Your task to perform on an android device: move a message to another label in the gmail app Image 0: 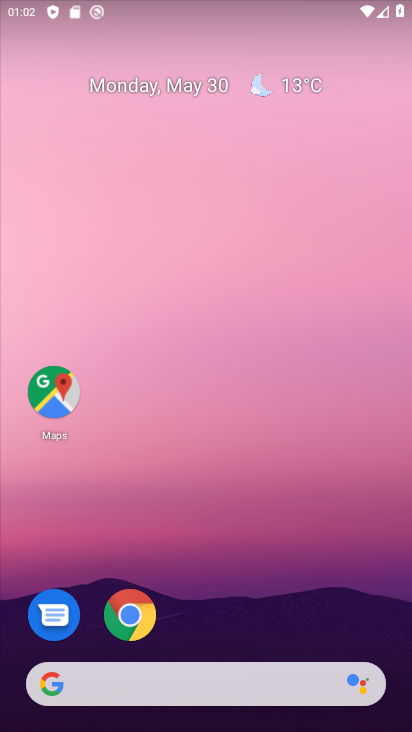
Step 0: drag from (187, 640) to (359, 18)
Your task to perform on an android device: move a message to another label in the gmail app Image 1: 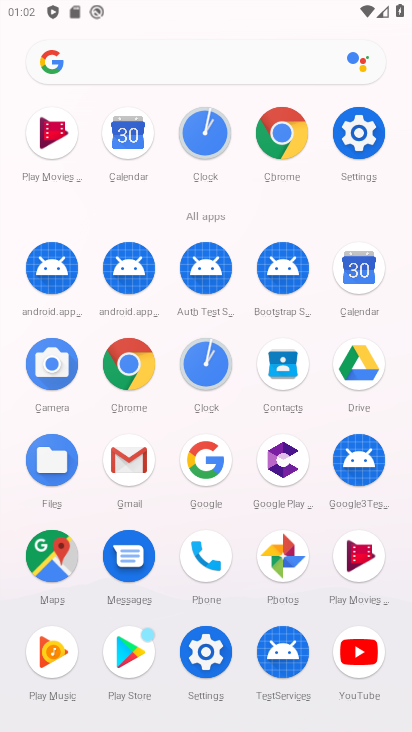
Step 1: click (143, 458)
Your task to perform on an android device: move a message to another label in the gmail app Image 2: 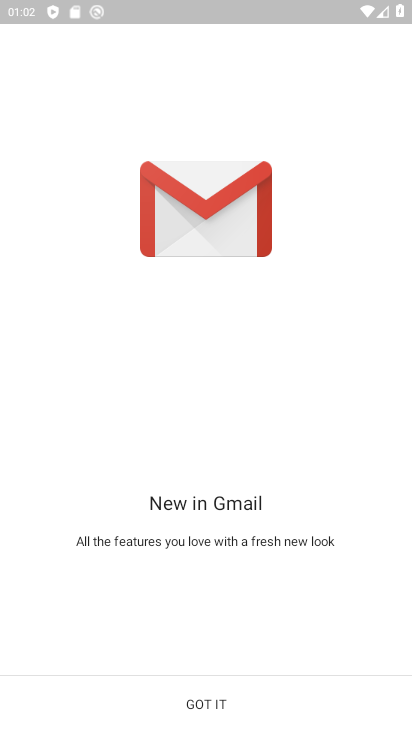
Step 2: click (259, 700)
Your task to perform on an android device: move a message to another label in the gmail app Image 3: 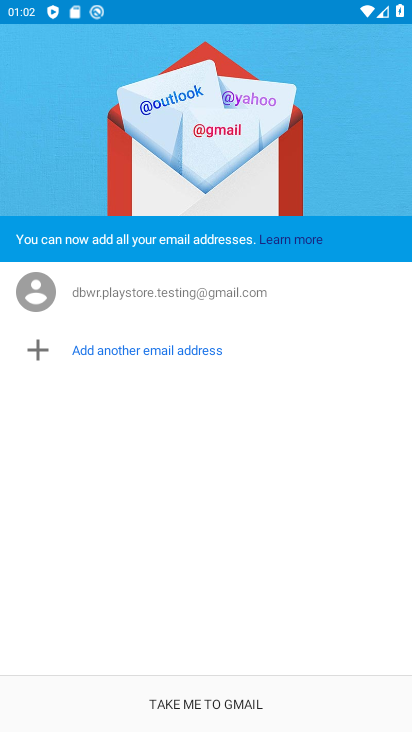
Step 3: click (260, 699)
Your task to perform on an android device: move a message to another label in the gmail app Image 4: 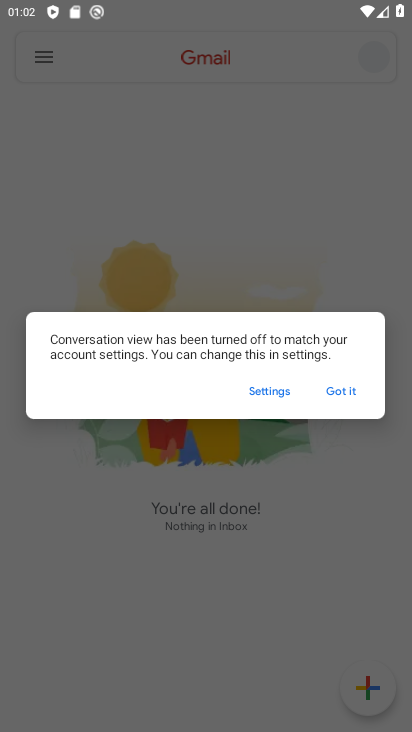
Step 4: task complete